Your task to perform on an android device: Open settings Image 0: 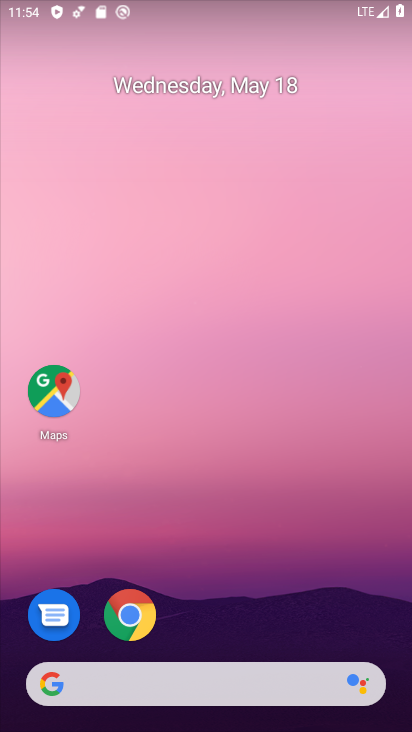
Step 0: drag from (218, 540) to (222, 39)
Your task to perform on an android device: Open settings Image 1: 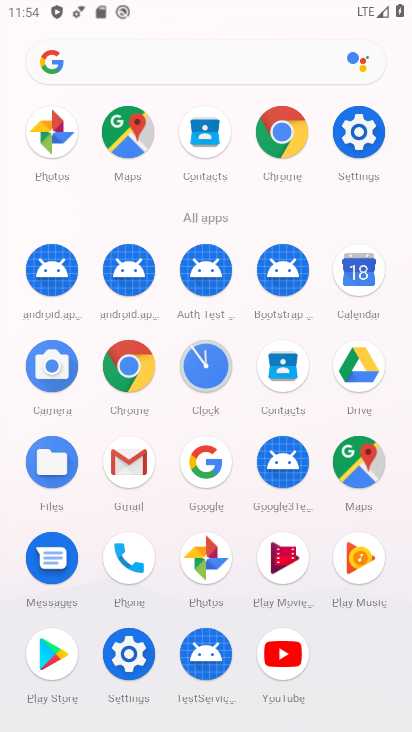
Step 1: click (125, 654)
Your task to perform on an android device: Open settings Image 2: 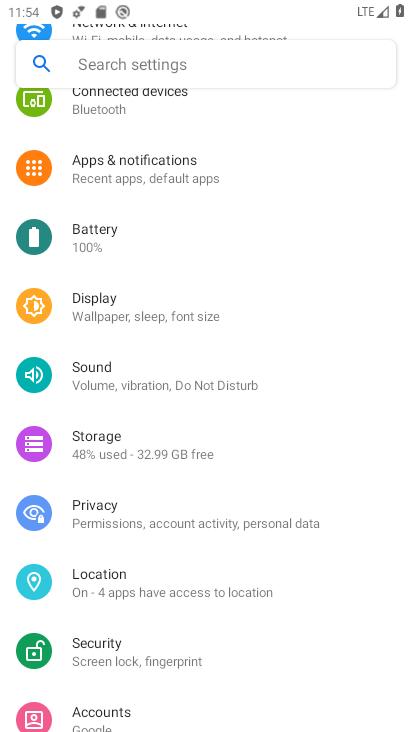
Step 2: task complete